Your task to perform on an android device: Go to battery settings Image 0: 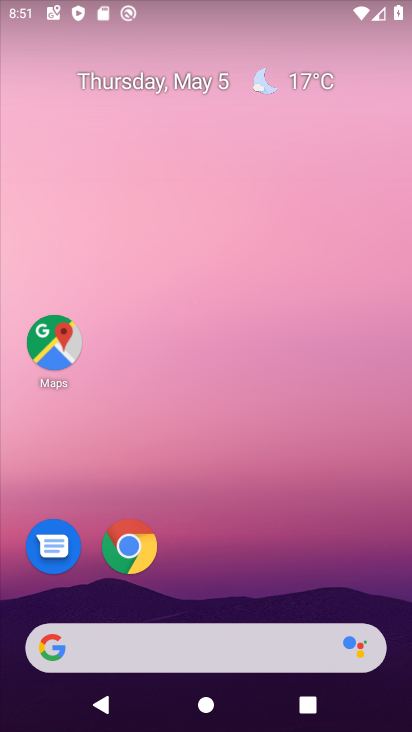
Step 0: drag from (177, 647) to (349, 14)
Your task to perform on an android device: Go to battery settings Image 1: 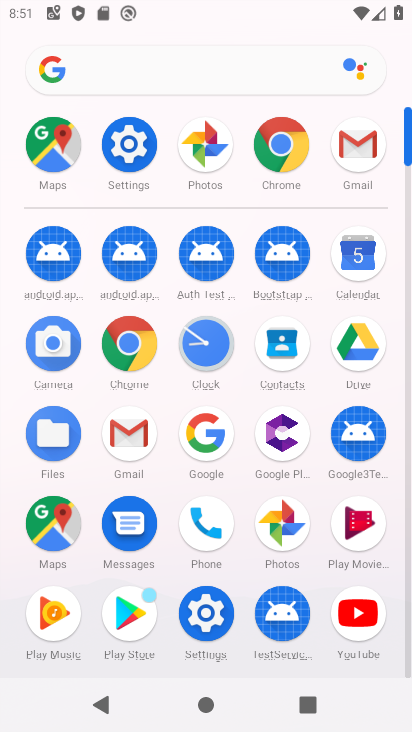
Step 1: click (122, 152)
Your task to perform on an android device: Go to battery settings Image 2: 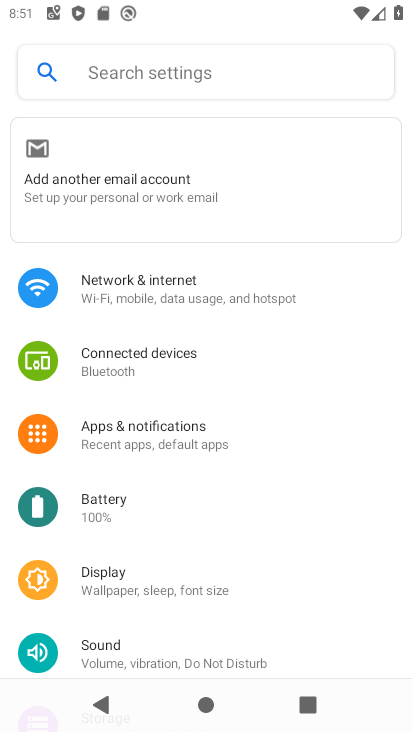
Step 2: click (110, 510)
Your task to perform on an android device: Go to battery settings Image 3: 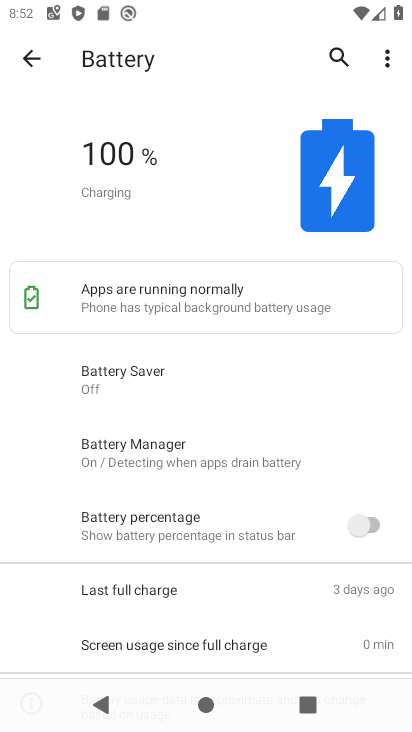
Step 3: task complete